Your task to perform on an android device: Show the shopping cart on amazon. Search for "lenovo thinkpad" on amazon, select the first entry, add it to the cart, then select checkout. Image 0: 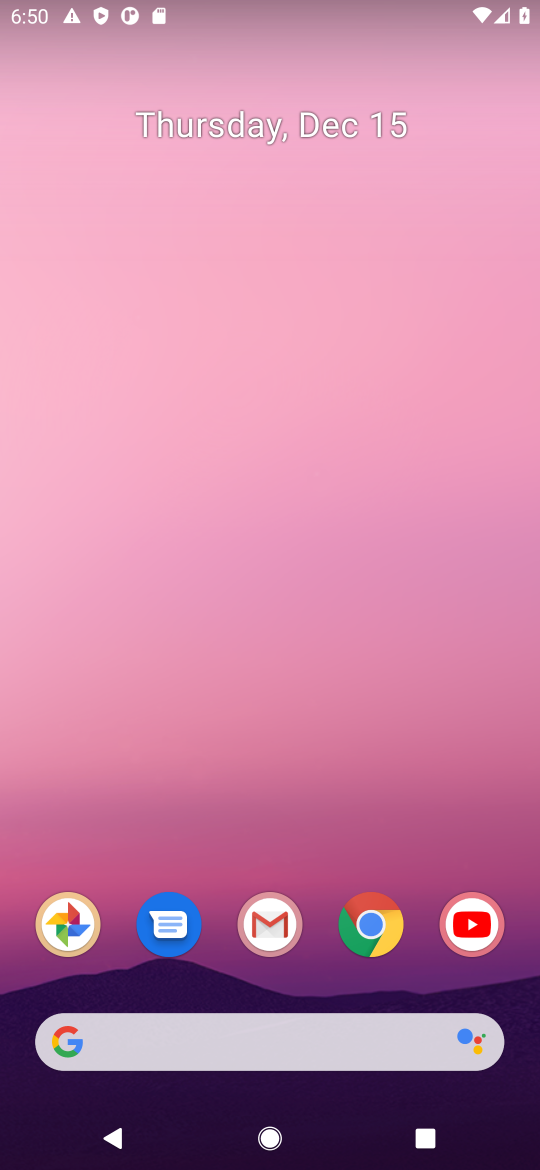
Step 0: click (353, 924)
Your task to perform on an android device: Show the shopping cart on amazon. Search for "lenovo thinkpad" on amazon, select the first entry, add it to the cart, then select checkout. Image 1: 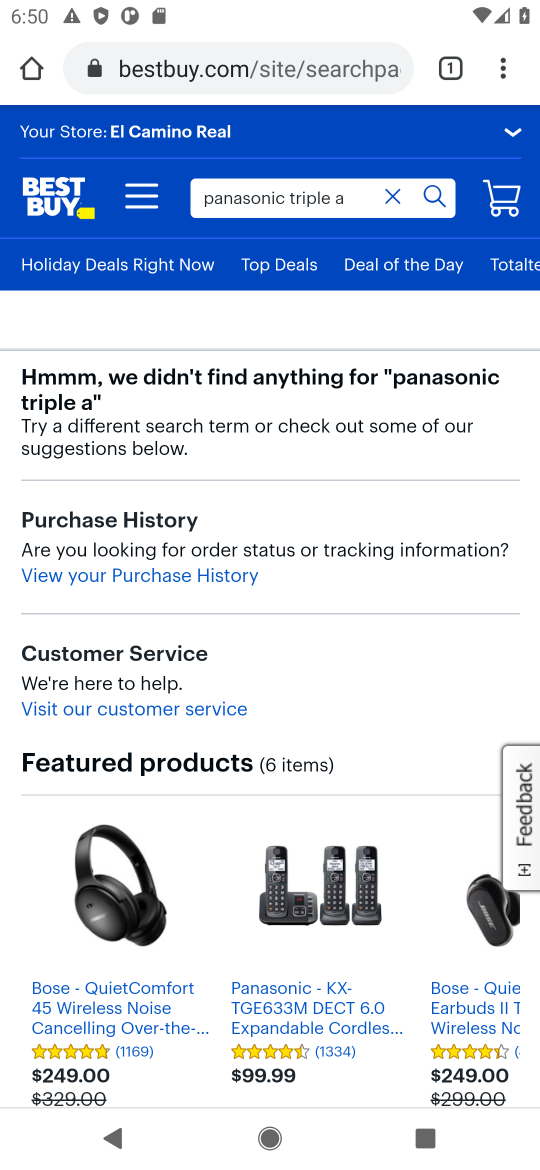
Step 1: click (374, 56)
Your task to perform on an android device: Show the shopping cart on amazon. Search for "lenovo thinkpad" on amazon, select the first entry, add it to the cart, then select checkout. Image 2: 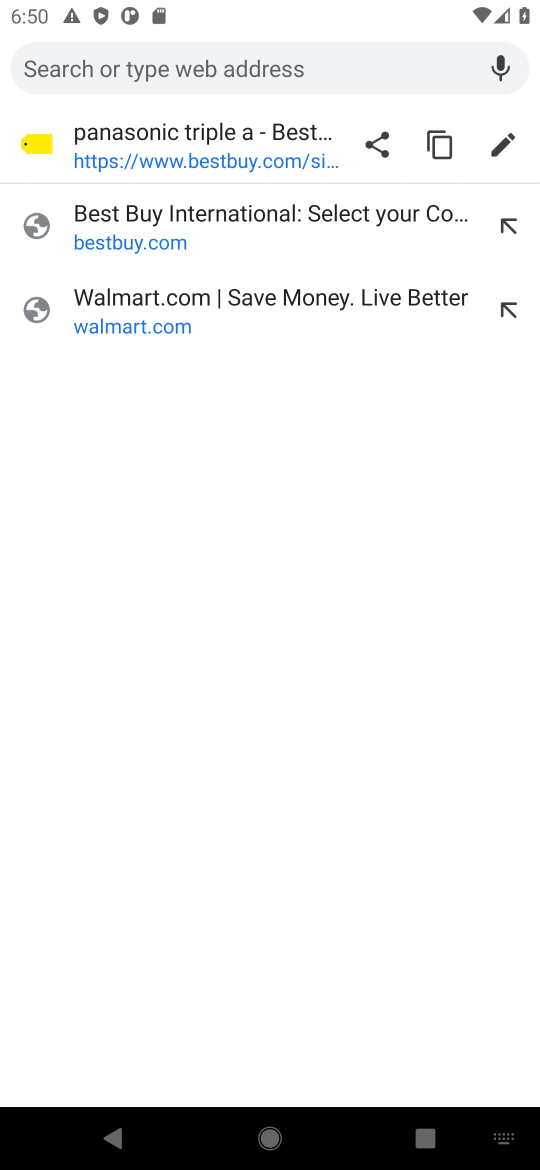
Step 2: type "amazon"
Your task to perform on an android device: Show the shopping cart on amazon. Search for "lenovo thinkpad" on amazon, select the first entry, add it to the cart, then select checkout. Image 3: 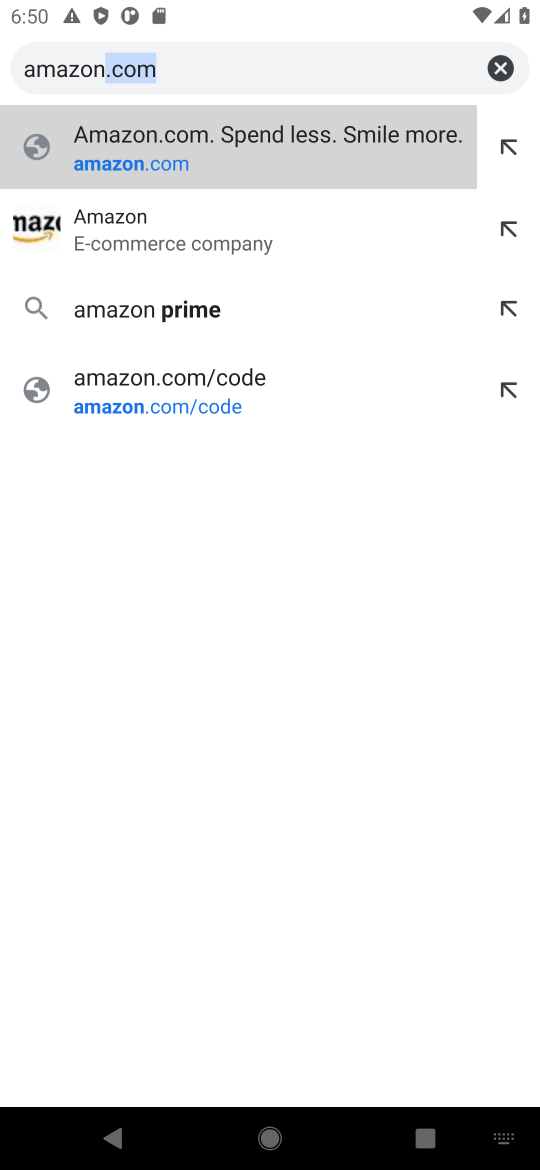
Step 3: click (294, 224)
Your task to perform on an android device: Show the shopping cart on amazon. Search for "lenovo thinkpad" on amazon, select the first entry, add it to the cart, then select checkout. Image 4: 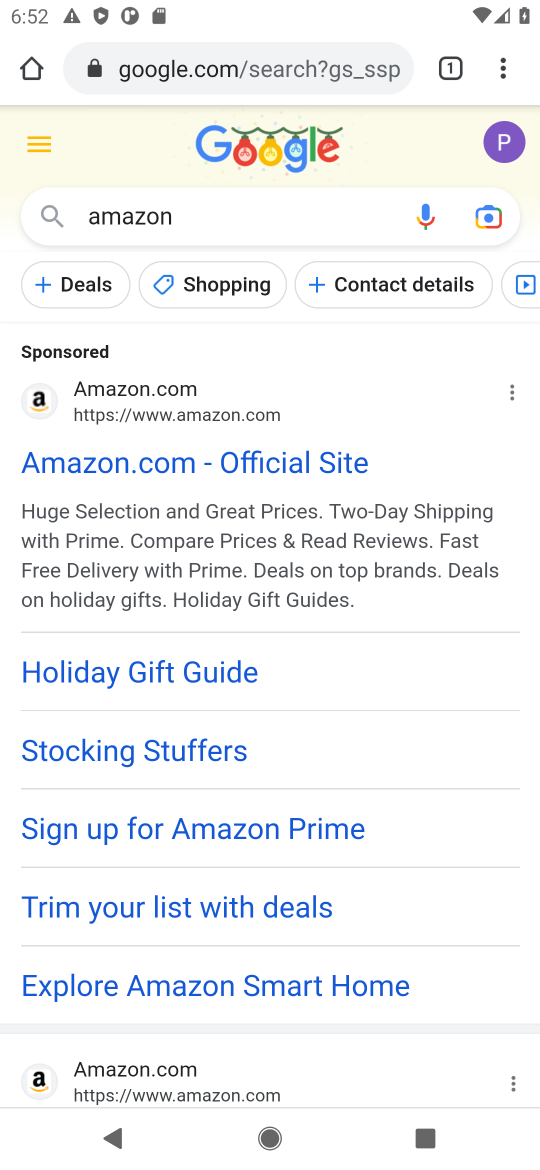
Step 4: click (58, 477)
Your task to perform on an android device: Show the shopping cart on amazon. Search for "lenovo thinkpad" on amazon, select the first entry, add it to the cart, then select checkout. Image 5: 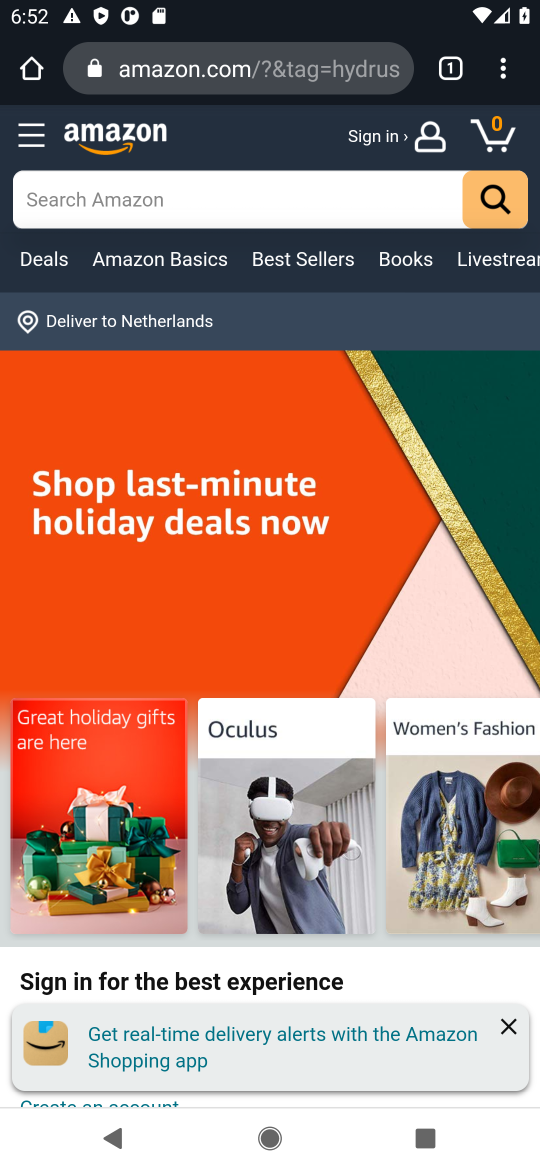
Step 5: click (42, 207)
Your task to perform on an android device: Show the shopping cart on amazon. Search for "lenovo thinkpad" on amazon, select the first entry, add it to the cart, then select checkout. Image 6: 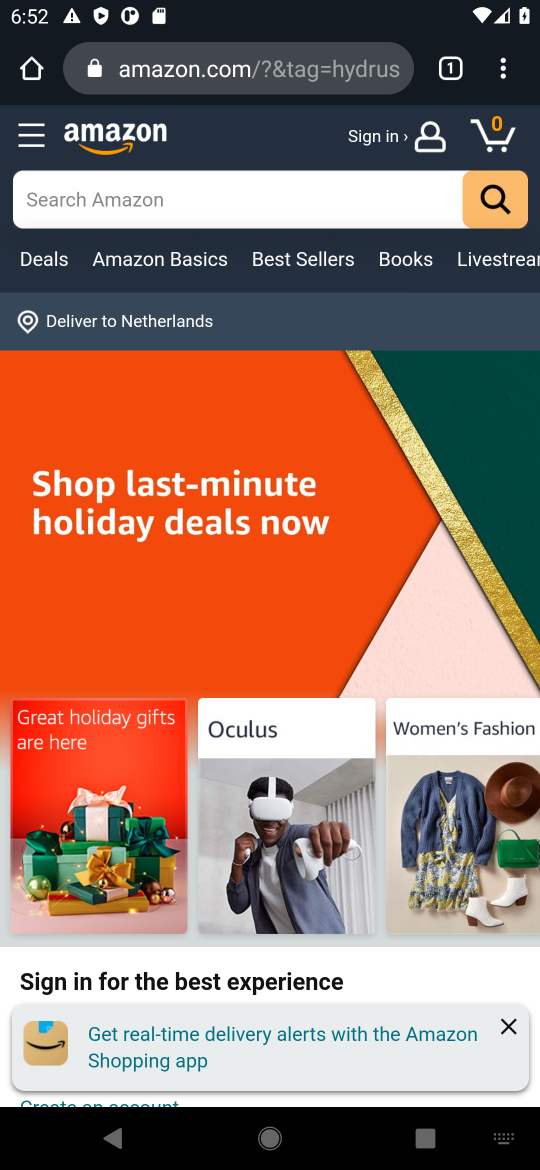
Step 6: type "lenovo thinkpad"
Your task to perform on an android device: Show the shopping cart on amazon. Search for "lenovo thinkpad" on amazon, select the first entry, add it to the cart, then select checkout. Image 7: 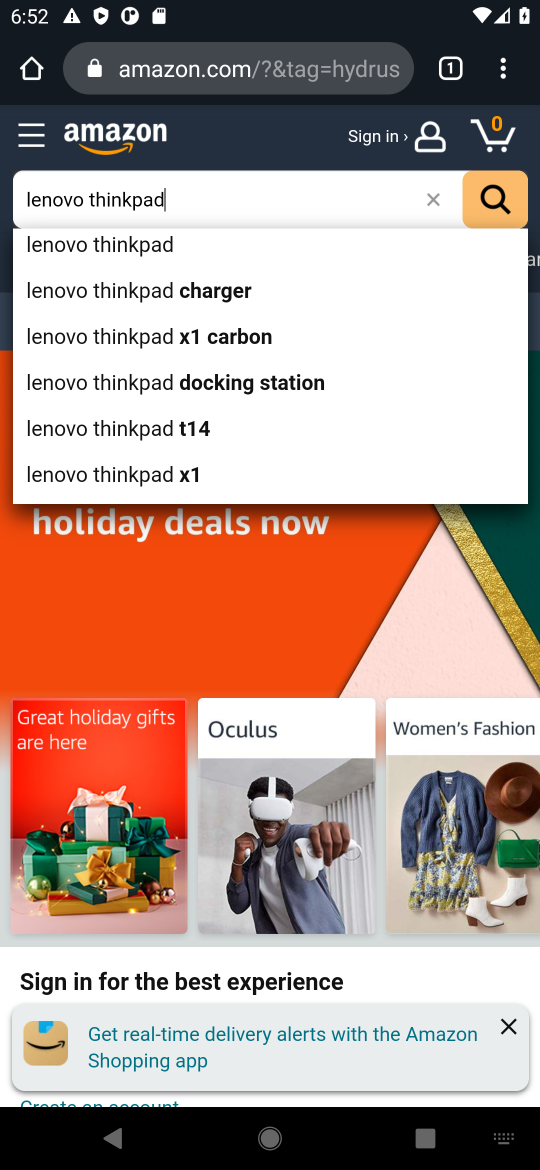
Step 7: click (105, 255)
Your task to perform on an android device: Show the shopping cart on amazon. Search for "lenovo thinkpad" on amazon, select the first entry, add it to the cart, then select checkout. Image 8: 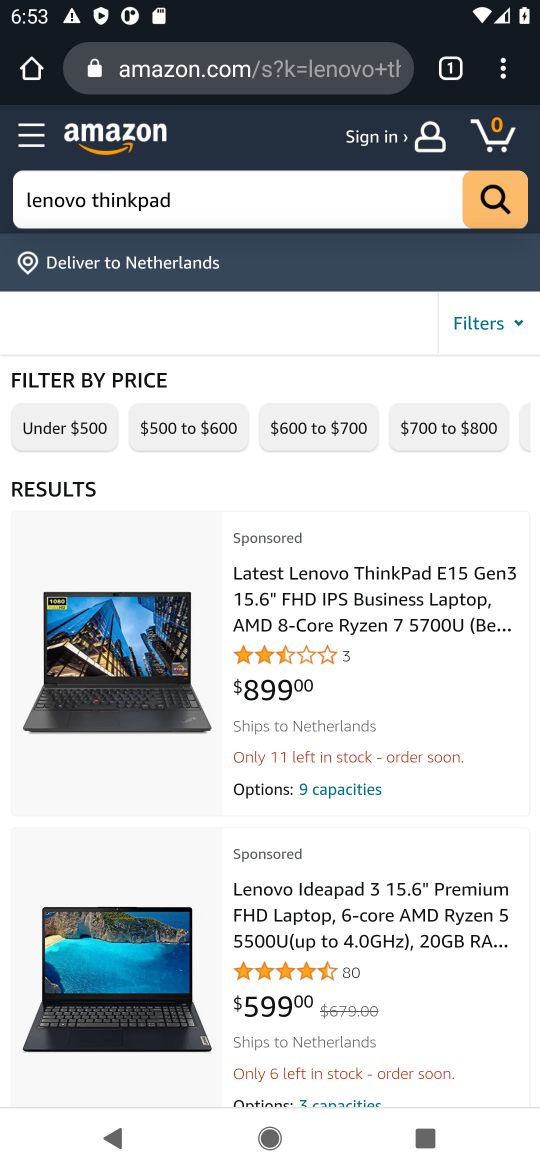
Step 8: click (354, 592)
Your task to perform on an android device: Show the shopping cart on amazon. Search for "lenovo thinkpad" on amazon, select the first entry, add it to the cart, then select checkout. Image 9: 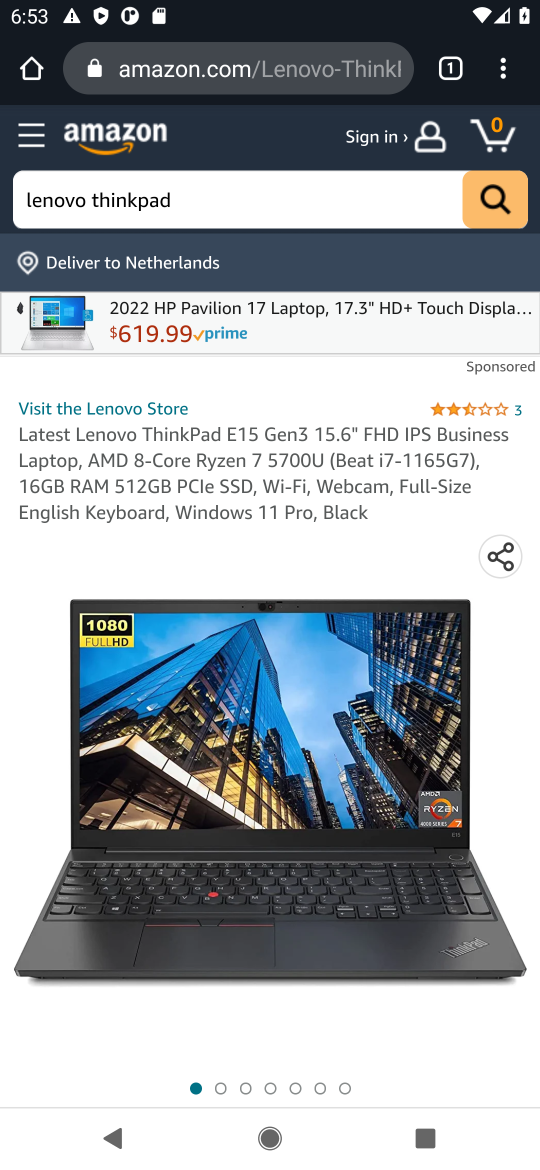
Step 9: drag from (145, 975) to (215, 404)
Your task to perform on an android device: Show the shopping cart on amazon. Search for "lenovo thinkpad" on amazon, select the first entry, add it to the cart, then select checkout. Image 10: 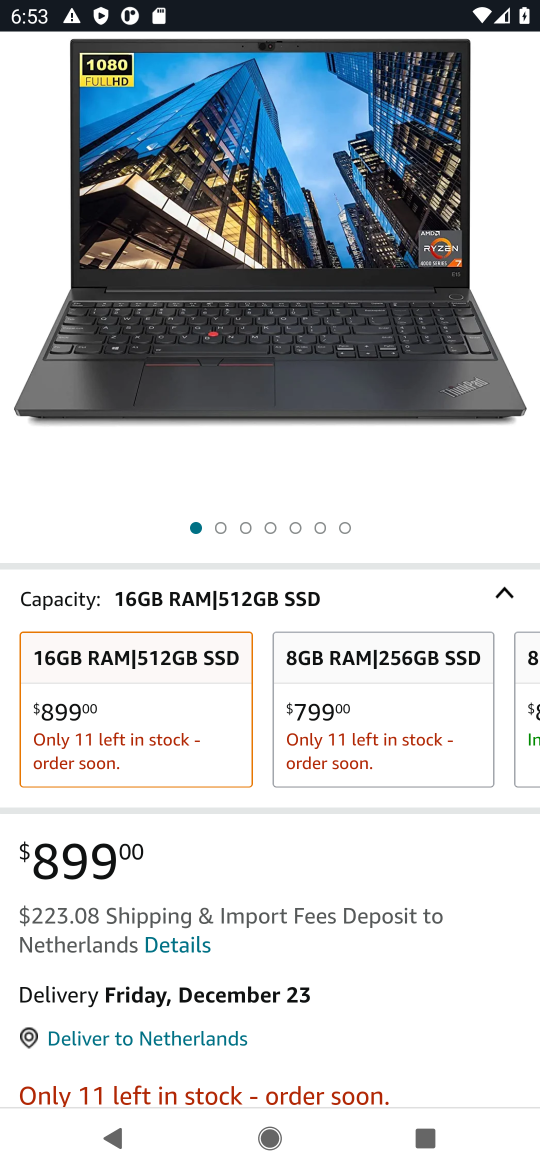
Step 10: drag from (231, 1000) to (275, 85)
Your task to perform on an android device: Show the shopping cart on amazon. Search for "lenovo thinkpad" on amazon, select the first entry, add it to the cart, then select checkout. Image 11: 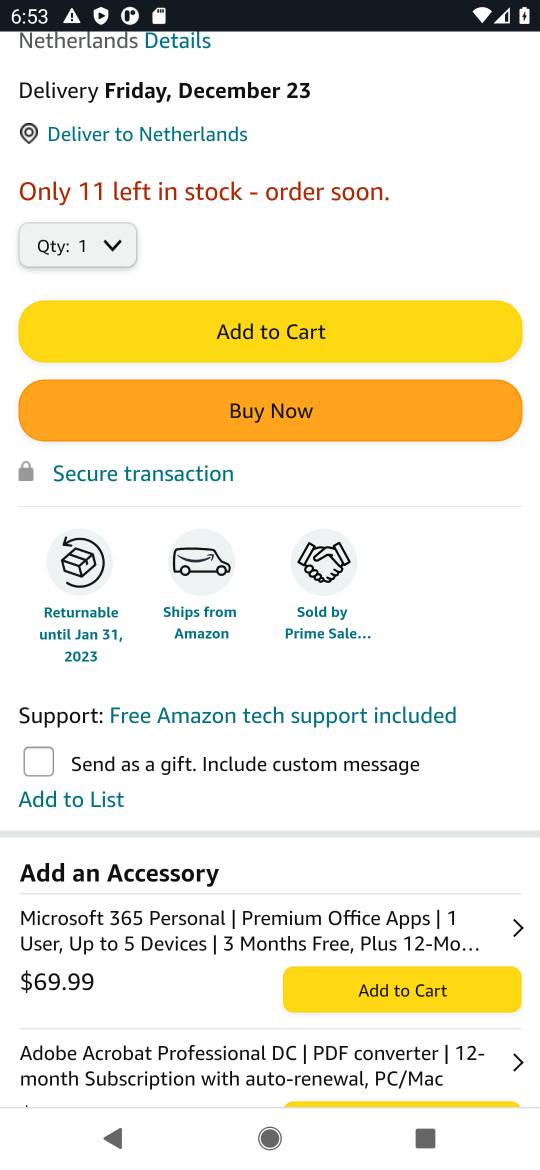
Step 11: click (211, 348)
Your task to perform on an android device: Show the shopping cart on amazon. Search for "lenovo thinkpad" on amazon, select the first entry, add it to the cart, then select checkout. Image 12: 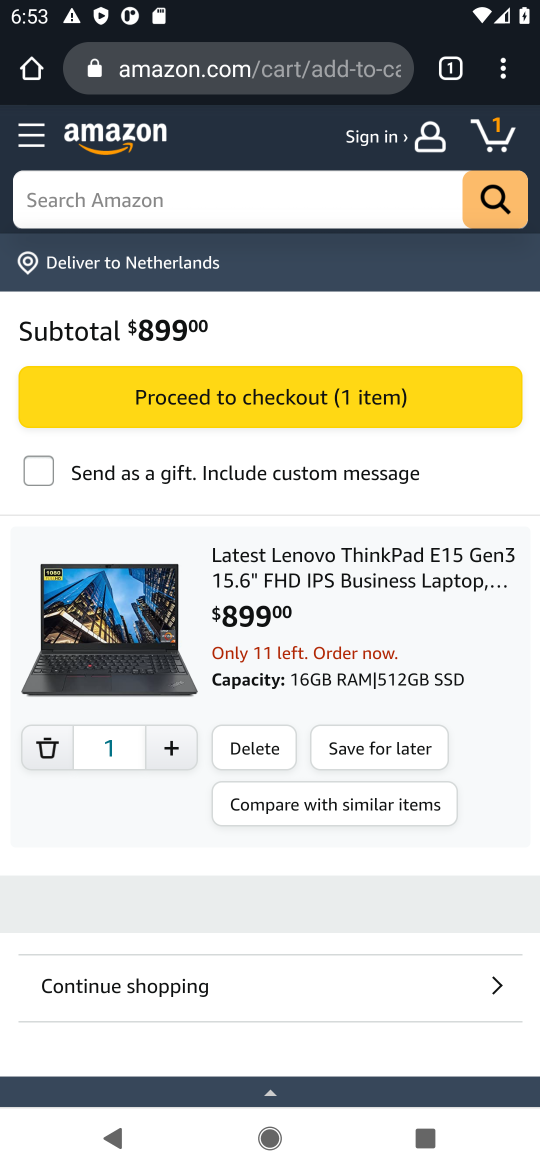
Step 12: click (293, 400)
Your task to perform on an android device: Show the shopping cart on amazon. Search for "lenovo thinkpad" on amazon, select the first entry, add it to the cart, then select checkout. Image 13: 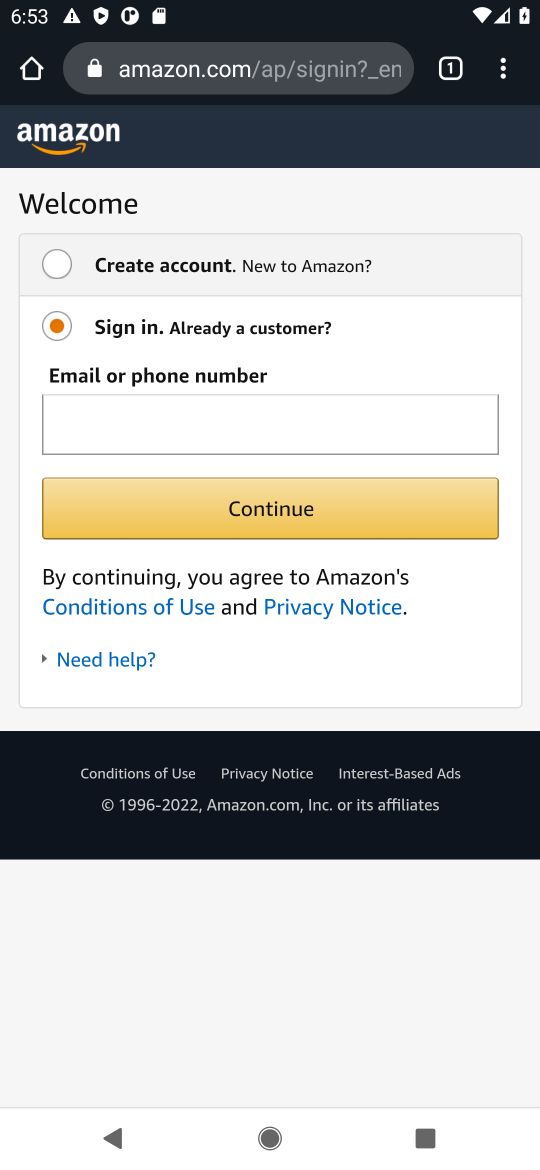
Step 13: task complete